Your task to perform on an android device: Open the map Image 0: 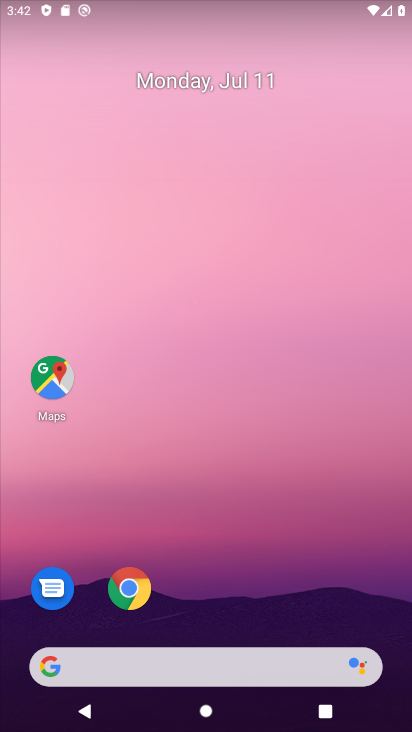
Step 0: drag from (219, 284) to (212, 0)
Your task to perform on an android device: Open the map Image 1: 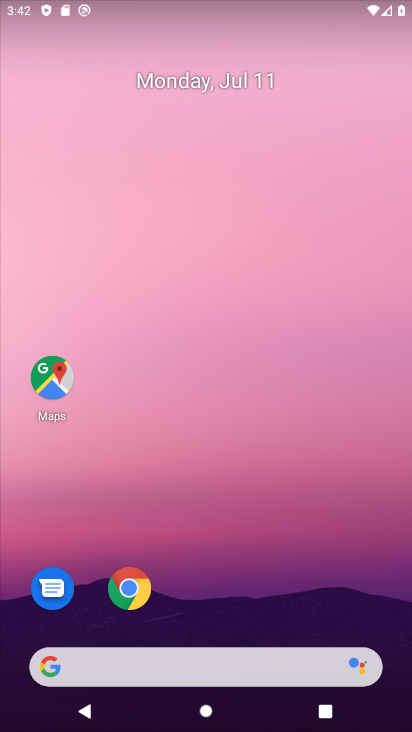
Step 1: drag from (269, 554) to (323, 40)
Your task to perform on an android device: Open the map Image 2: 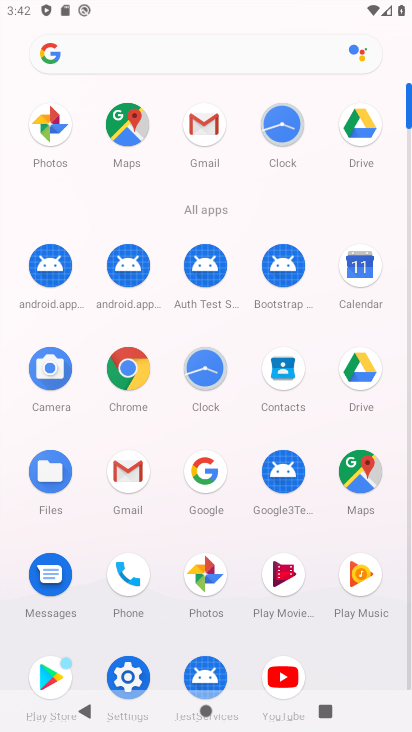
Step 2: drag from (328, 673) to (404, 209)
Your task to perform on an android device: Open the map Image 3: 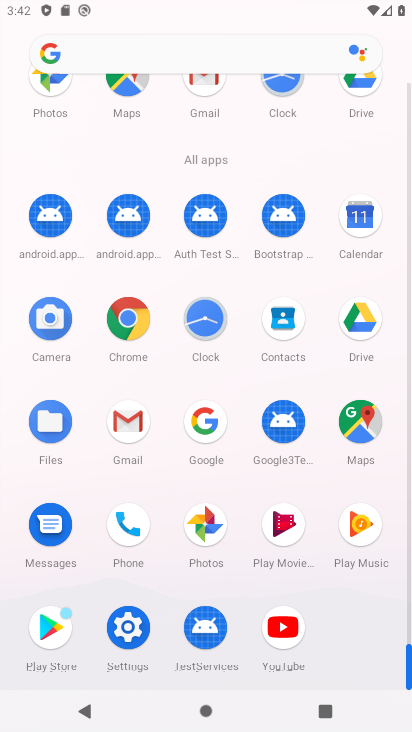
Step 3: click (358, 433)
Your task to perform on an android device: Open the map Image 4: 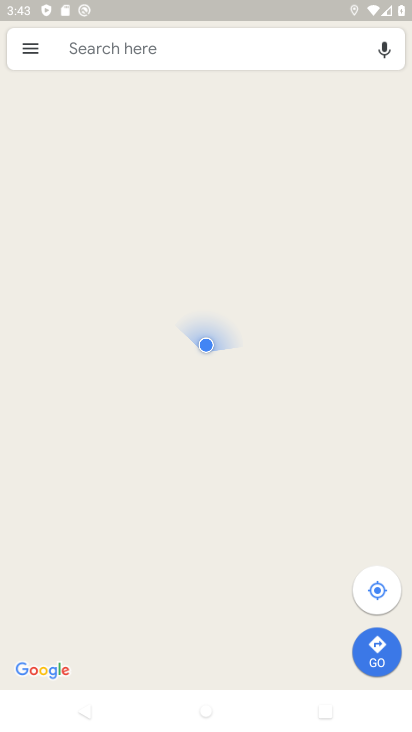
Step 4: task complete